Your task to perform on an android device: open app "DoorDash - Dasher" (install if not already installed), go to login, and select forgot password Image 0: 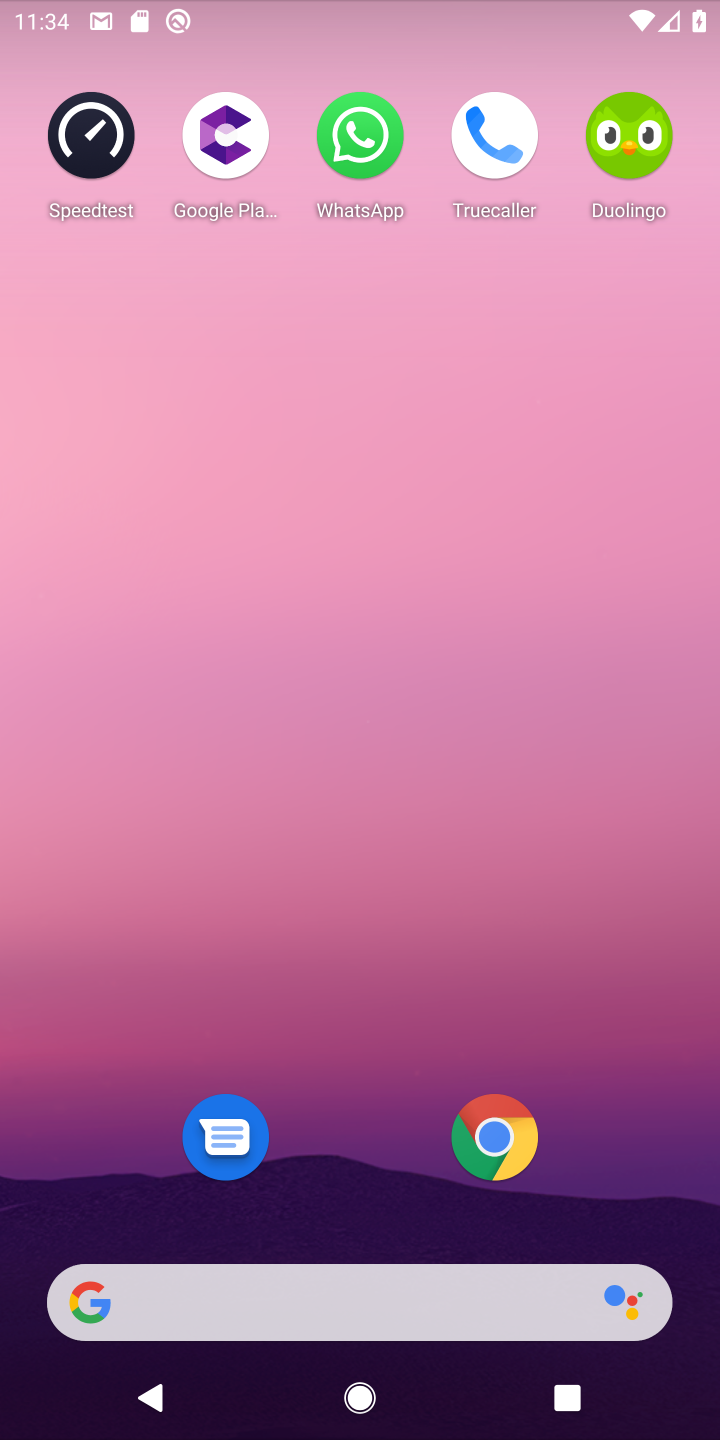
Step 0: press home button
Your task to perform on an android device: open app "DoorDash - Dasher" (install if not already installed), go to login, and select forgot password Image 1: 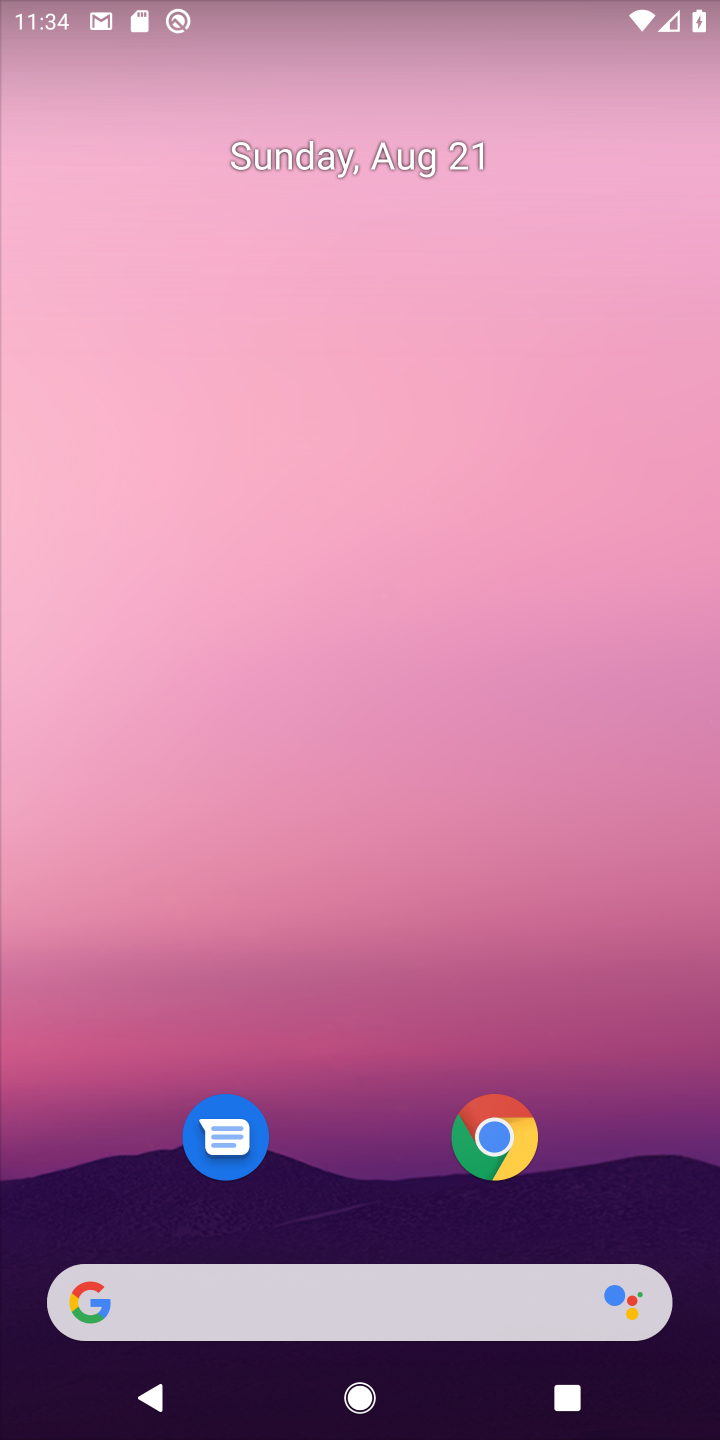
Step 1: drag from (670, 1222) to (568, 196)
Your task to perform on an android device: open app "DoorDash - Dasher" (install if not already installed), go to login, and select forgot password Image 2: 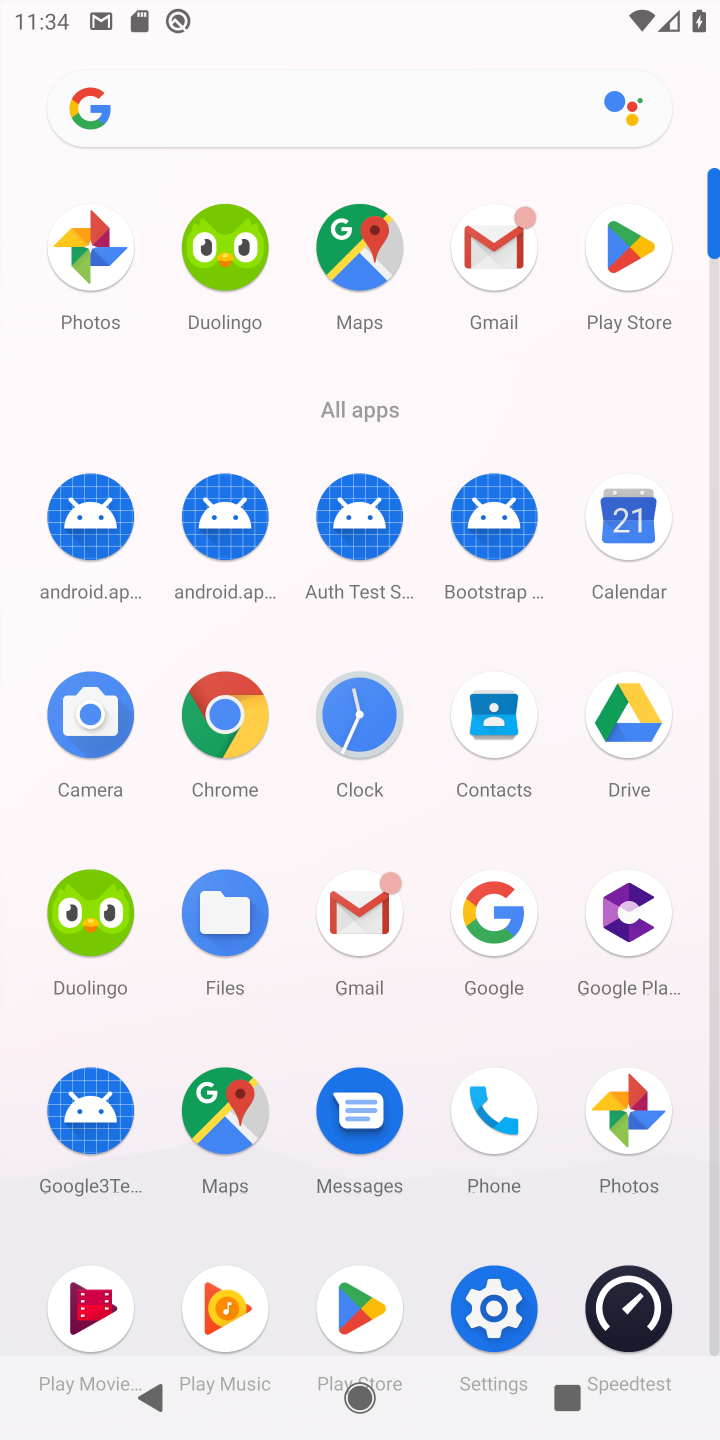
Step 2: click (367, 1314)
Your task to perform on an android device: open app "DoorDash - Dasher" (install if not already installed), go to login, and select forgot password Image 3: 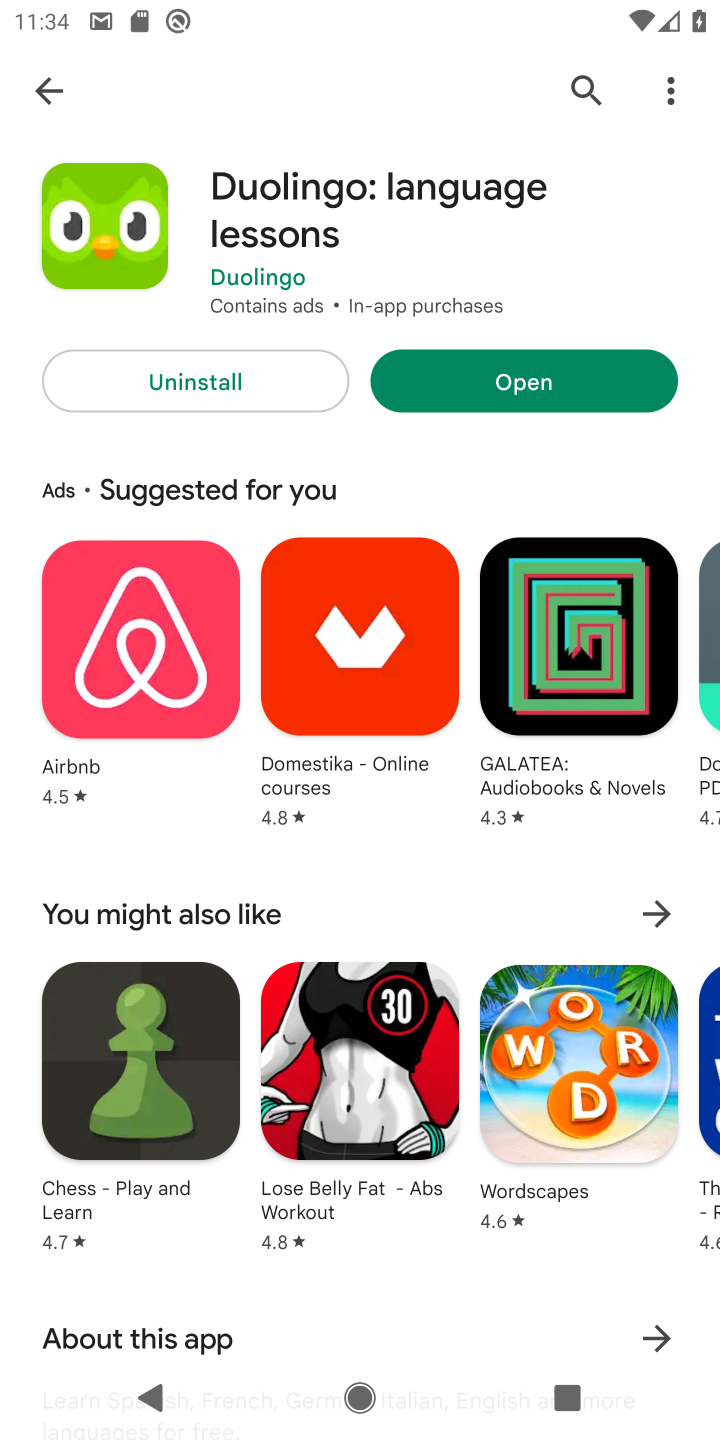
Step 3: click (589, 87)
Your task to perform on an android device: open app "DoorDash - Dasher" (install if not already installed), go to login, and select forgot password Image 4: 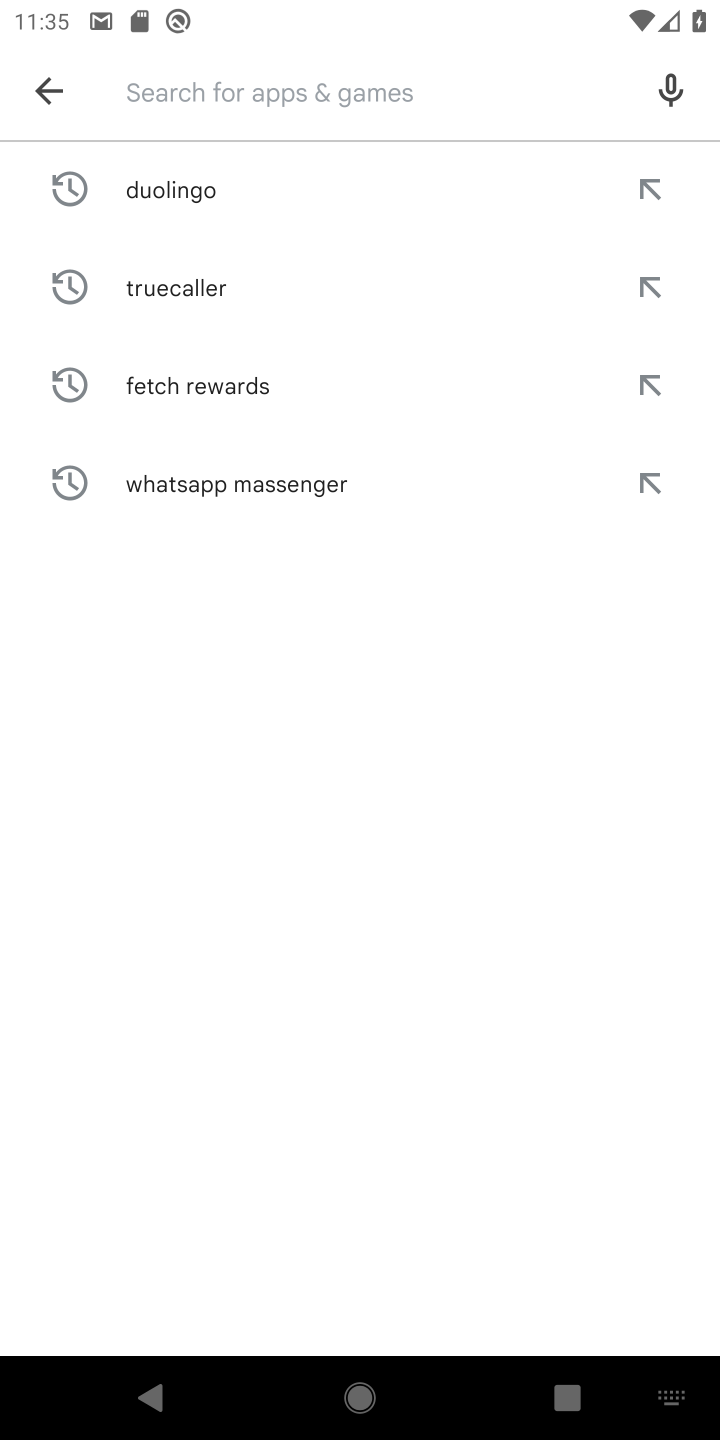
Step 4: type "DoorDash - Dasher"
Your task to perform on an android device: open app "DoorDash - Dasher" (install if not already installed), go to login, and select forgot password Image 5: 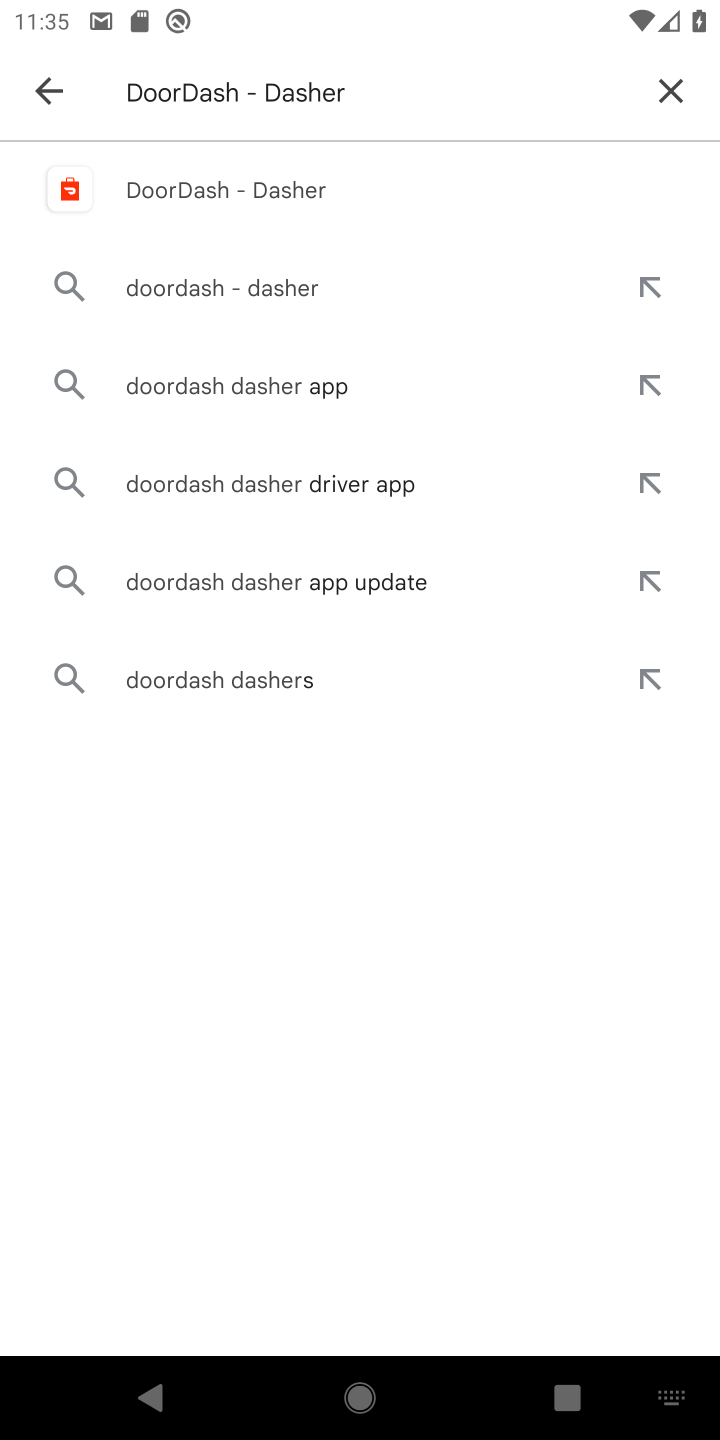
Step 5: click (217, 185)
Your task to perform on an android device: open app "DoorDash - Dasher" (install if not already installed), go to login, and select forgot password Image 6: 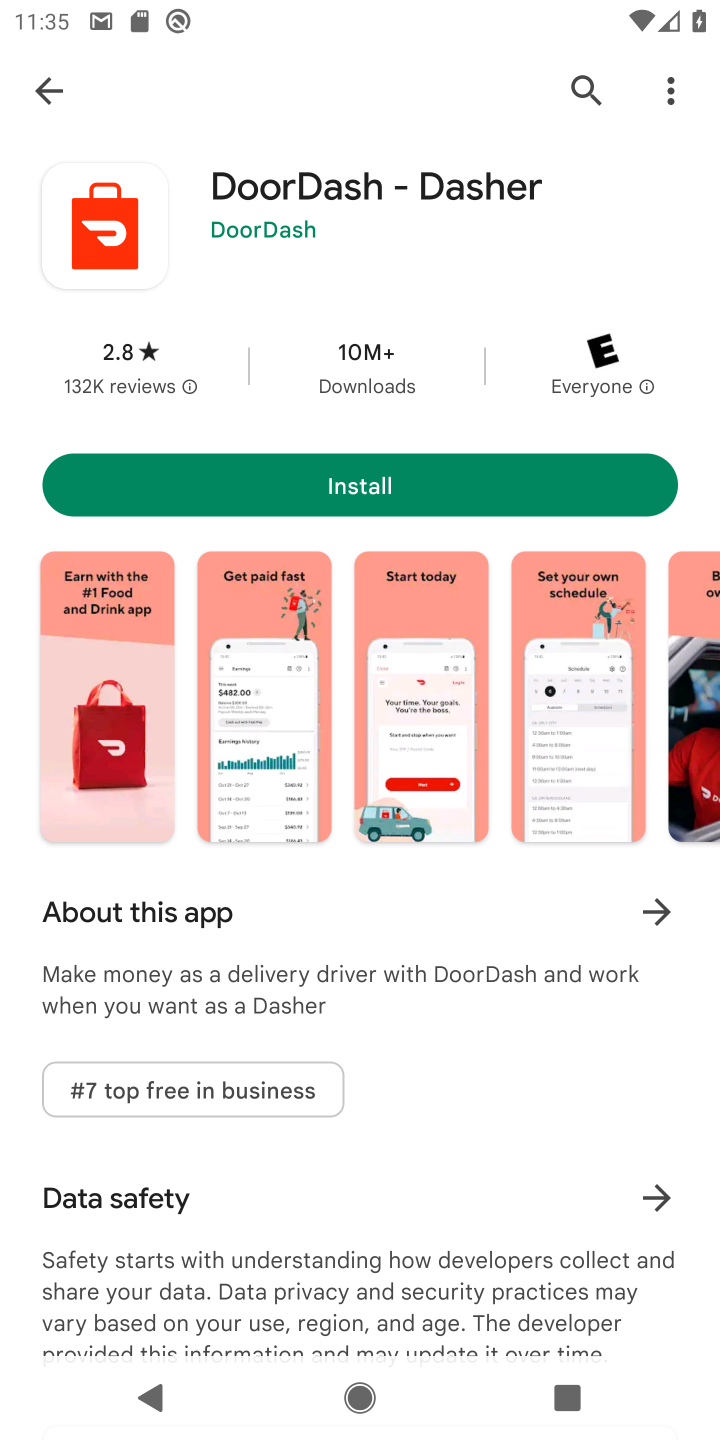
Step 6: click (367, 486)
Your task to perform on an android device: open app "DoorDash - Dasher" (install if not already installed), go to login, and select forgot password Image 7: 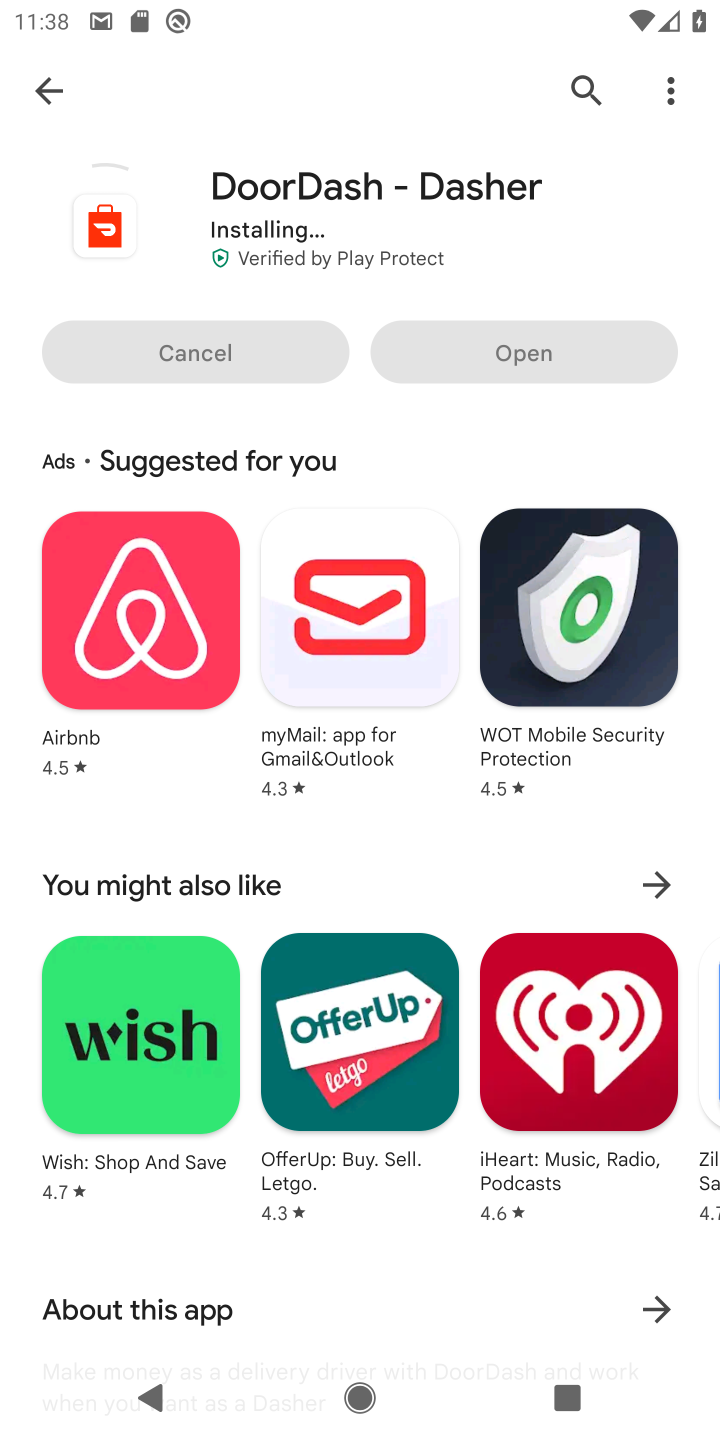
Step 7: click (258, 184)
Your task to perform on an android device: open app "DoorDash - Dasher" (install if not already installed), go to login, and select forgot password Image 8: 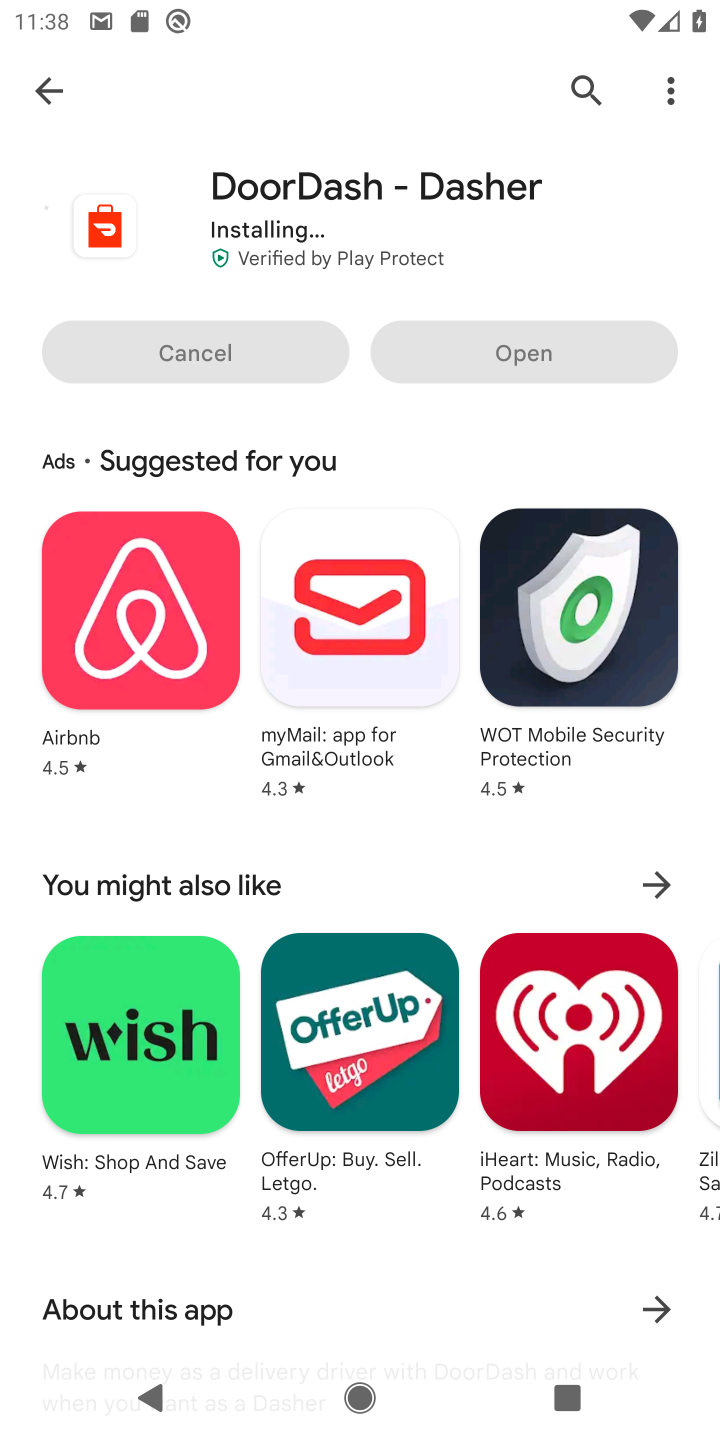
Step 8: drag from (368, 407) to (371, 496)
Your task to perform on an android device: open app "DoorDash - Dasher" (install if not already installed), go to login, and select forgot password Image 9: 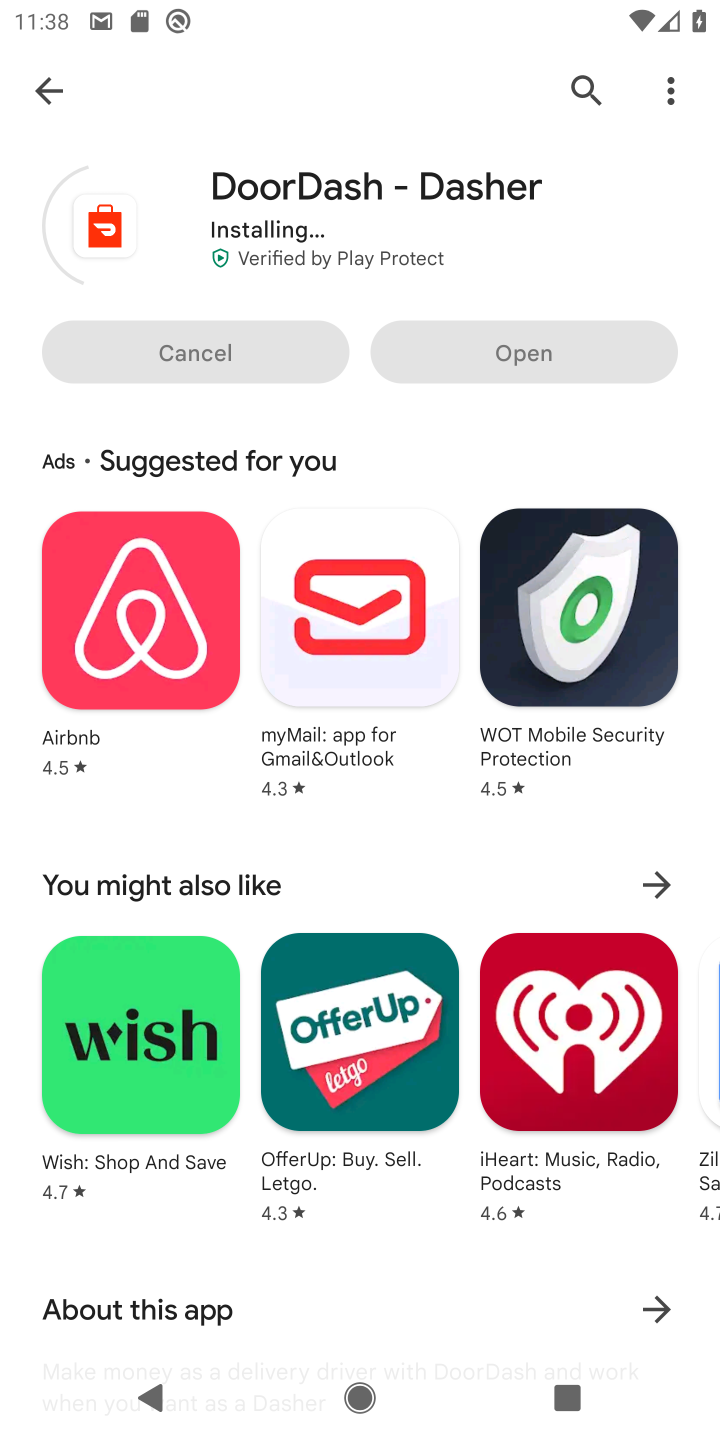
Step 9: drag from (364, 219) to (357, 446)
Your task to perform on an android device: open app "DoorDash - Dasher" (install if not already installed), go to login, and select forgot password Image 10: 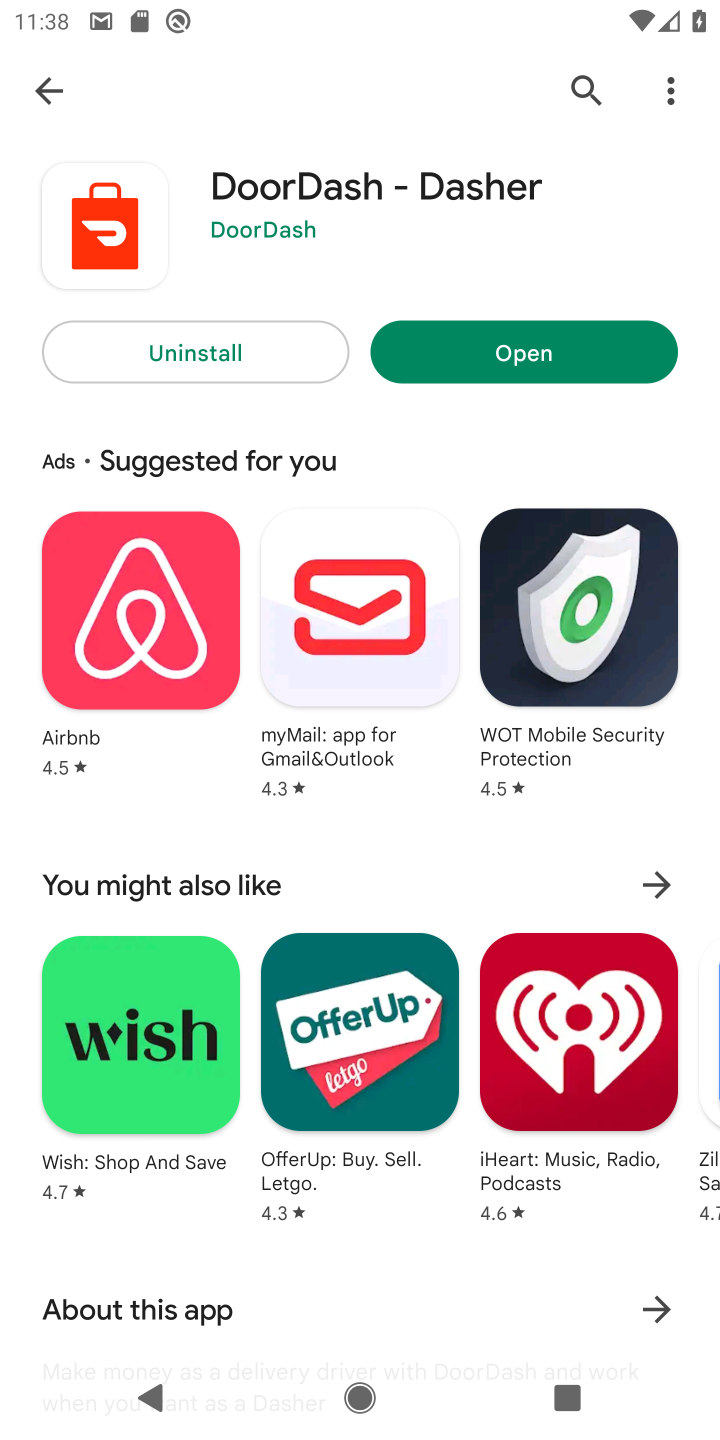
Step 10: click (514, 352)
Your task to perform on an android device: open app "DoorDash - Dasher" (install if not already installed), go to login, and select forgot password Image 11: 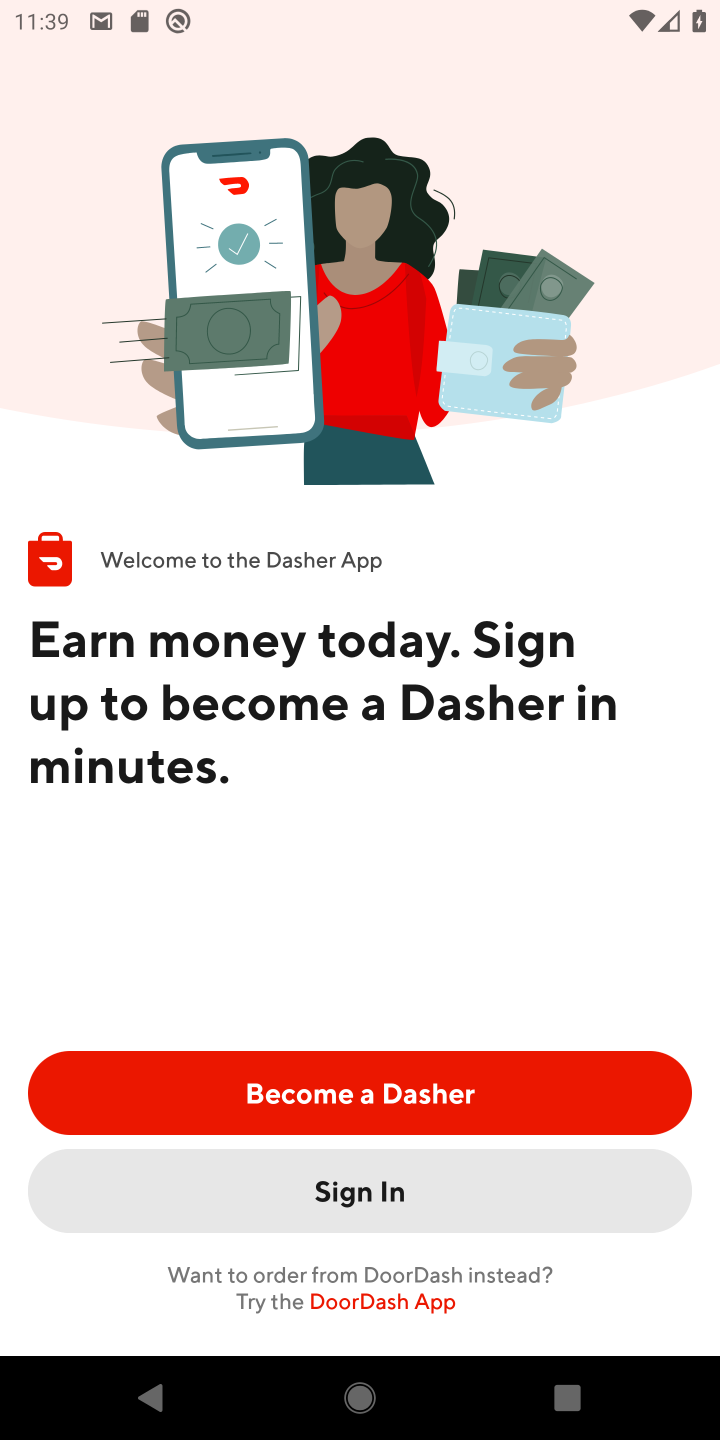
Step 11: click (345, 1192)
Your task to perform on an android device: open app "DoorDash - Dasher" (install if not already installed), go to login, and select forgot password Image 12: 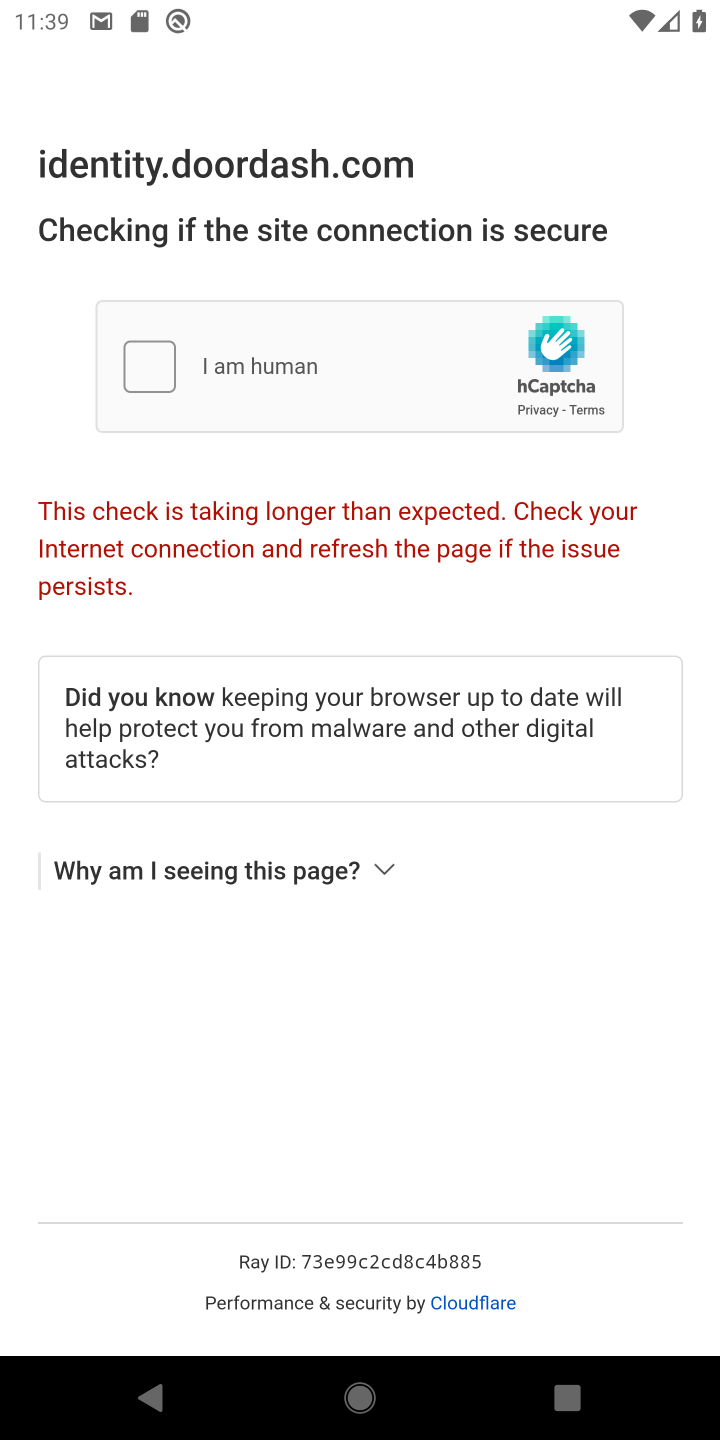
Step 12: click (156, 373)
Your task to perform on an android device: open app "DoorDash - Dasher" (install if not already installed), go to login, and select forgot password Image 13: 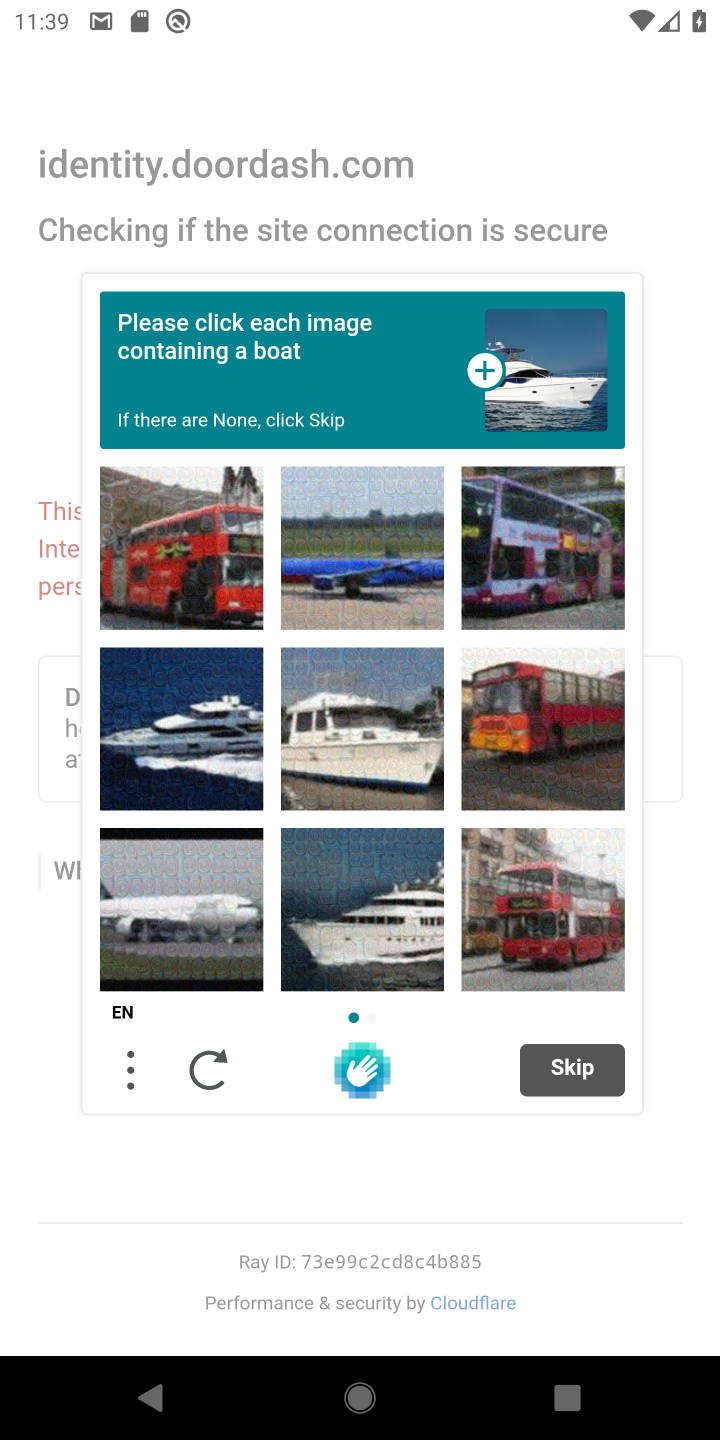
Step 13: click (360, 725)
Your task to perform on an android device: open app "DoorDash - Dasher" (install if not already installed), go to login, and select forgot password Image 14: 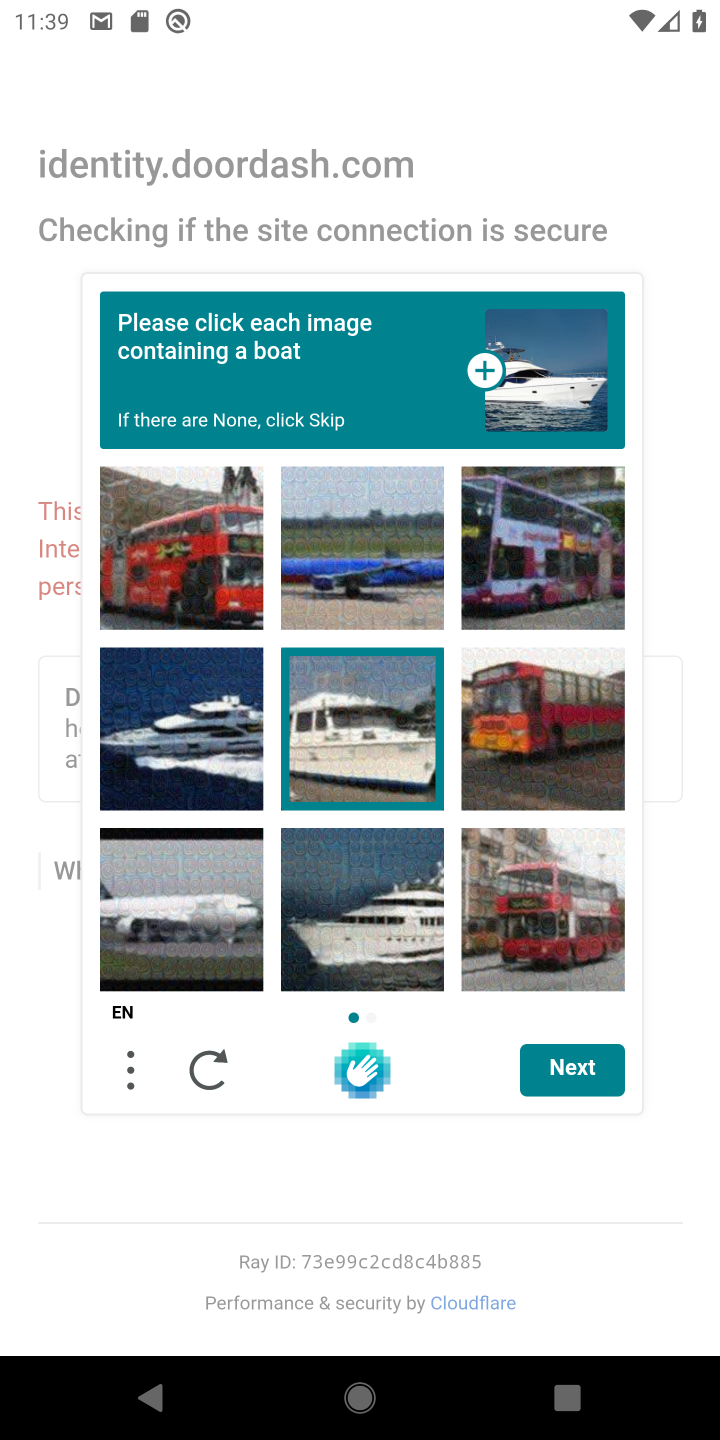
Step 14: click (189, 747)
Your task to perform on an android device: open app "DoorDash - Dasher" (install if not already installed), go to login, and select forgot password Image 15: 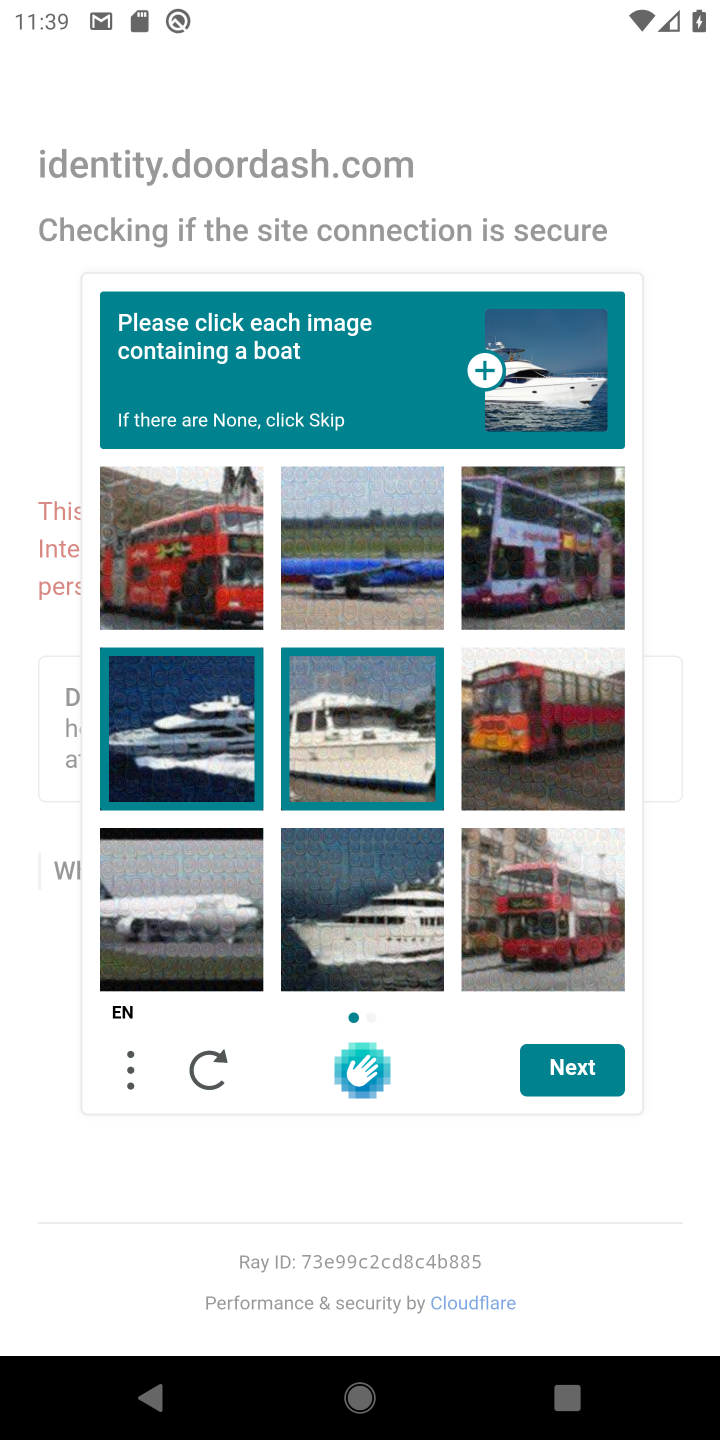
Step 15: click (360, 940)
Your task to perform on an android device: open app "DoorDash - Dasher" (install if not already installed), go to login, and select forgot password Image 16: 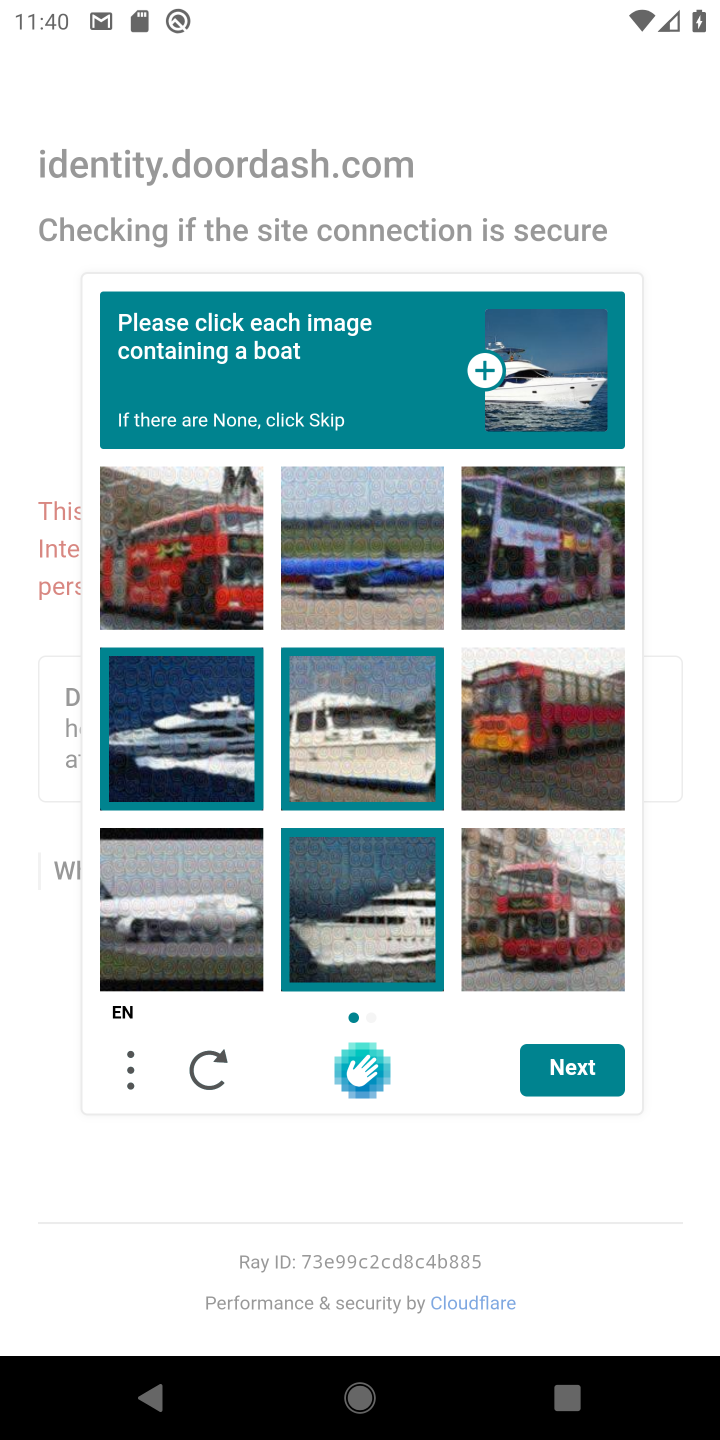
Step 16: click (565, 1076)
Your task to perform on an android device: open app "DoorDash - Dasher" (install if not already installed), go to login, and select forgot password Image 17: 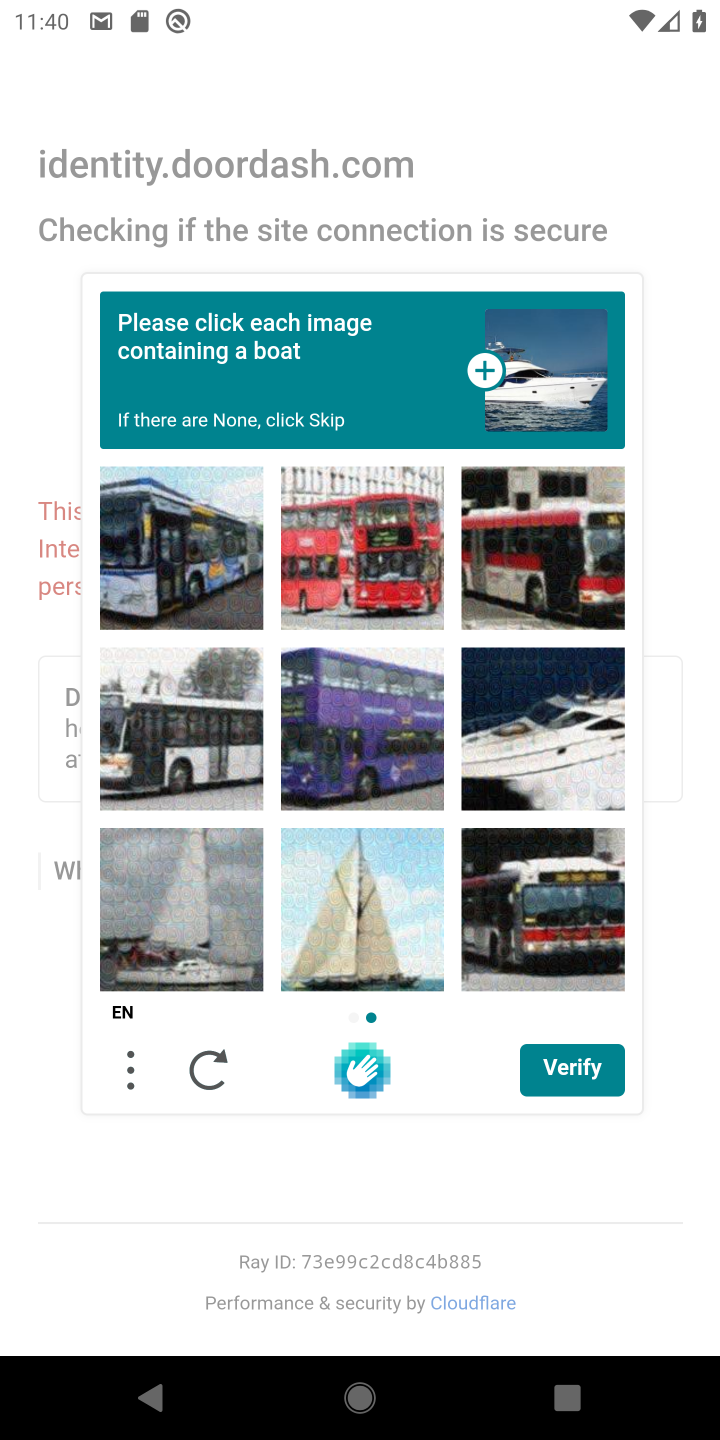
Step 17: click (576, 1067)
Your task to perform on an android device: open app "DoorDash - Dasher" (install if not already installed), go to login, and select forgot password Image 18: 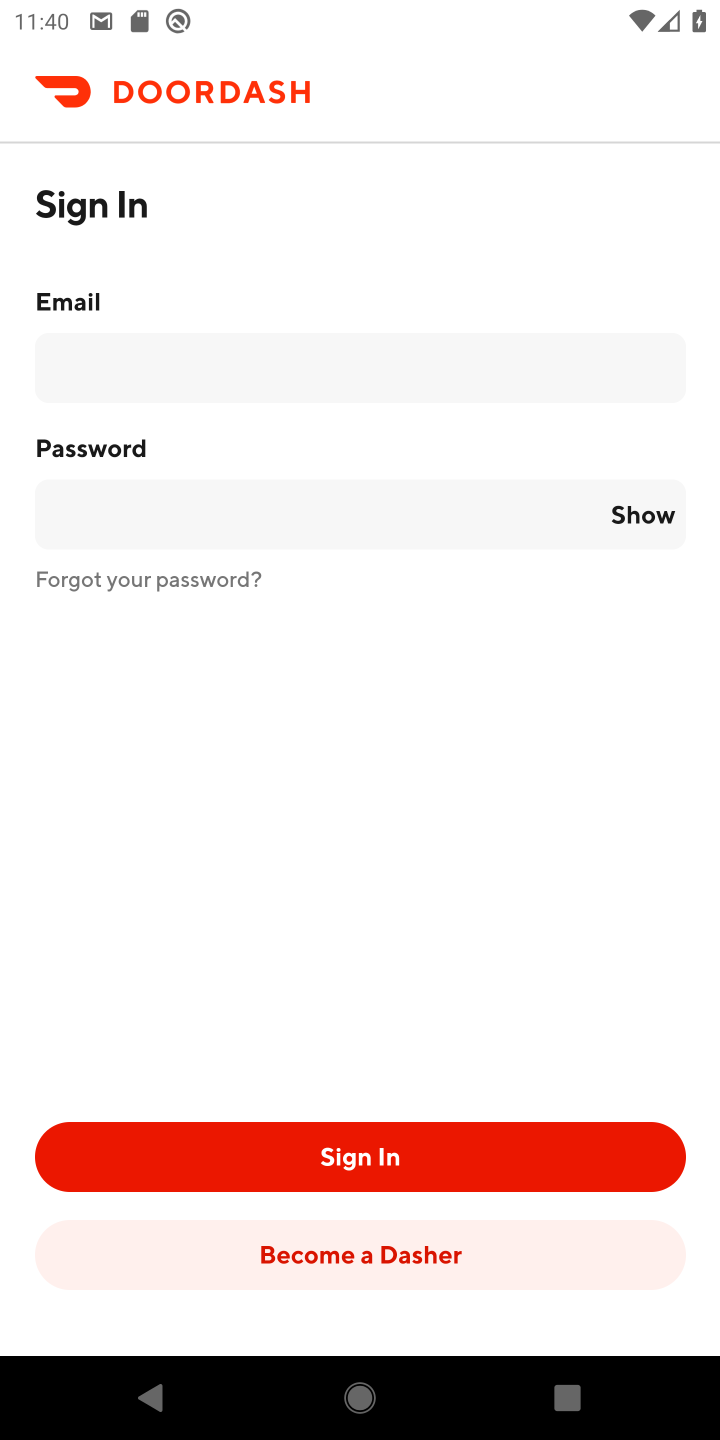
Step 18: click (189, 378)
Your task to perform on an android device: open app "DoorDash - Dasher" (install if not already installed), go to login, and select forgot password Image 19: 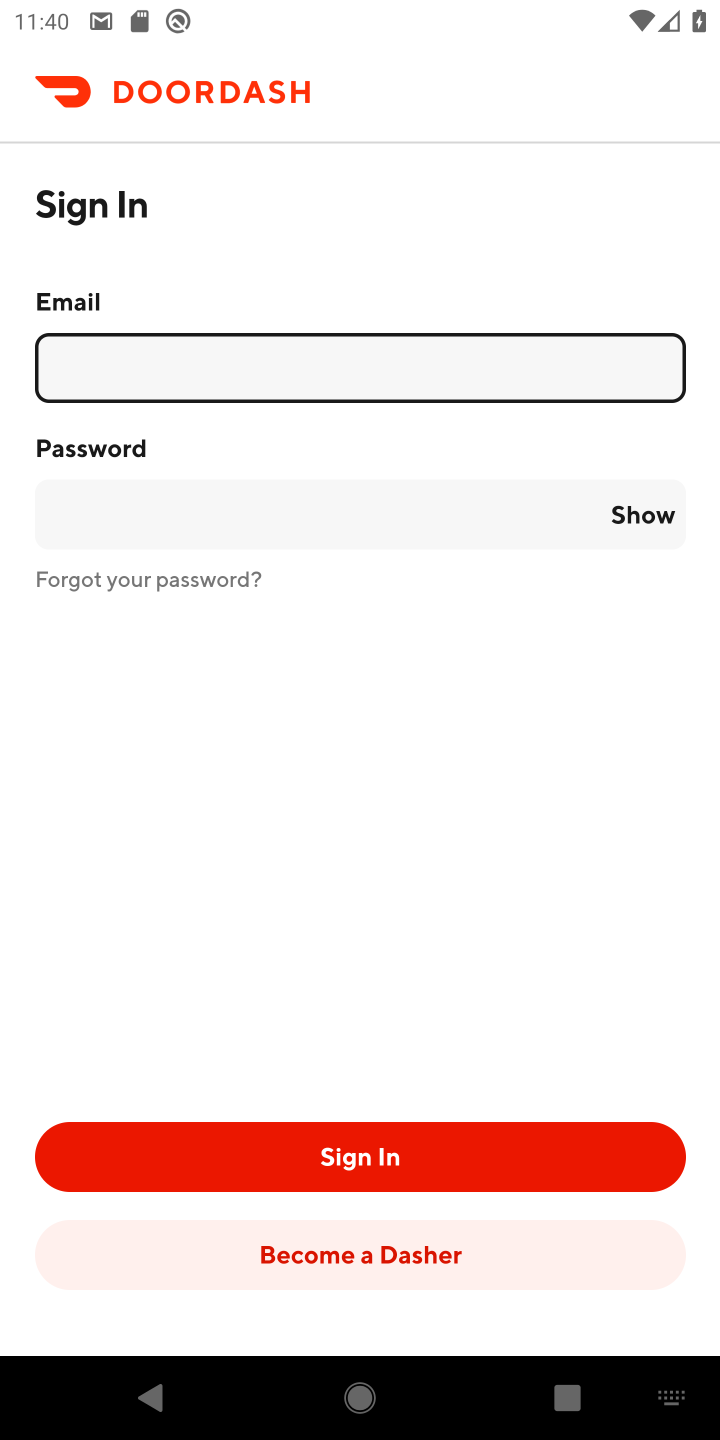
Step 19: click (153, 570)
Your task to perform on an android device: open app "DoorDash - Dasher" (install if not already installed), go to login, and select forgot password Image 20: 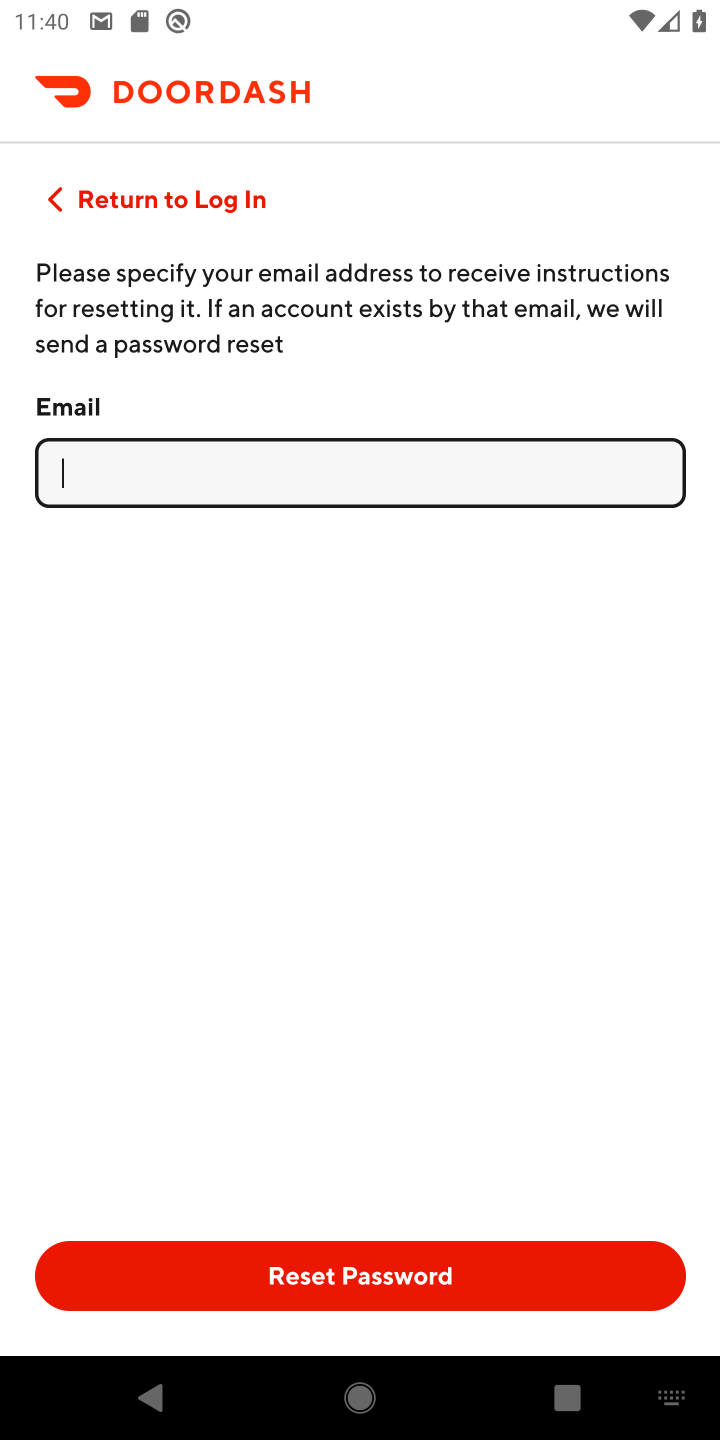
Step 20: task complete